Your task to perform on an android device: Open battery settings Image 0: 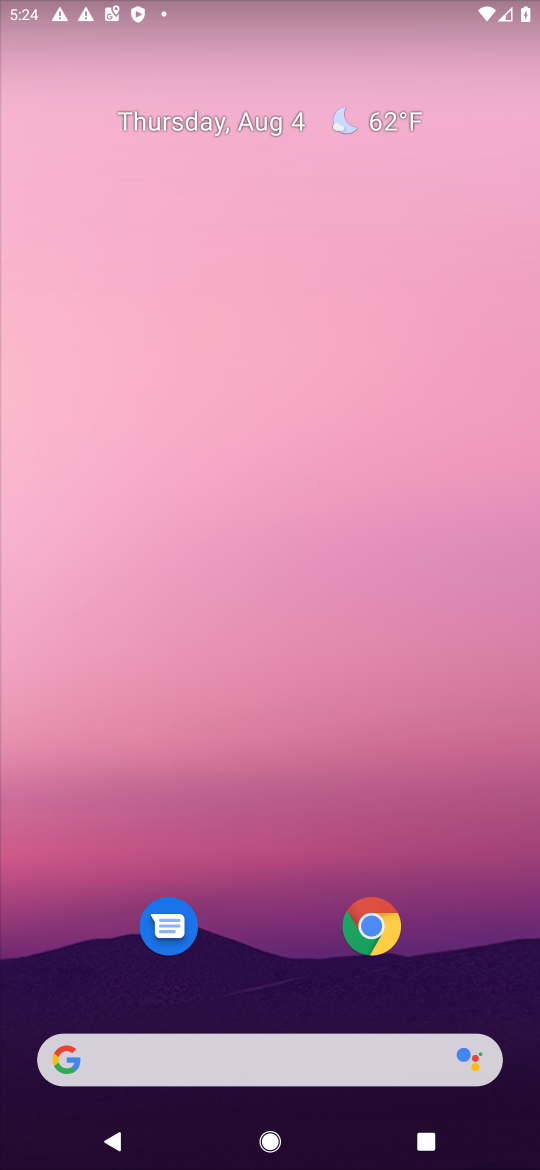
Step 0: press home button
Your task to perform on an android device: Open battery settings Image 1: 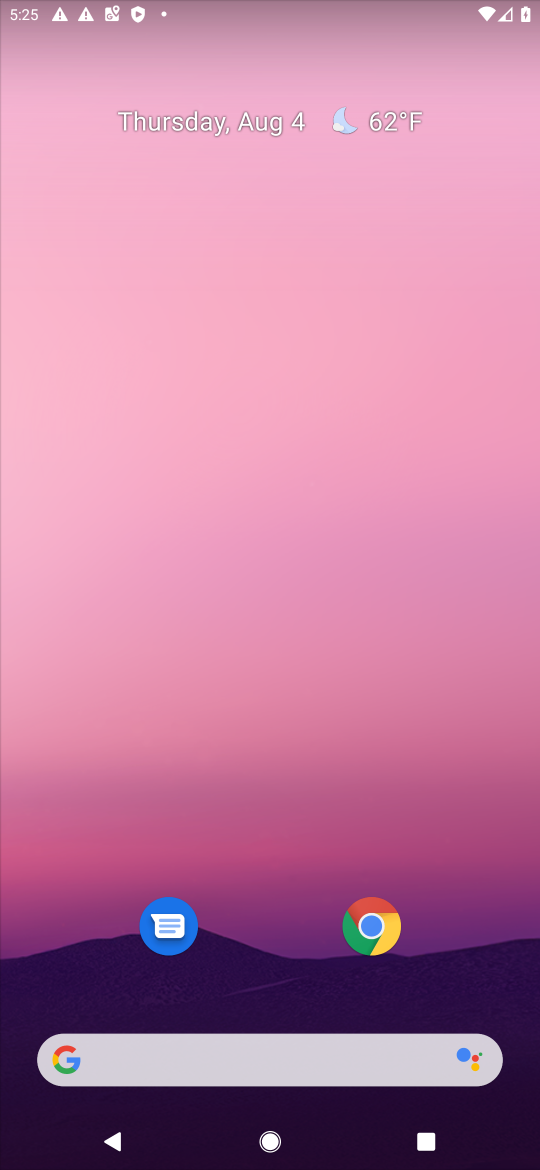
Step 1: drag from (450, 617) to (4, 377)
Your task to perform on an android device: Open battery settings Image 2: 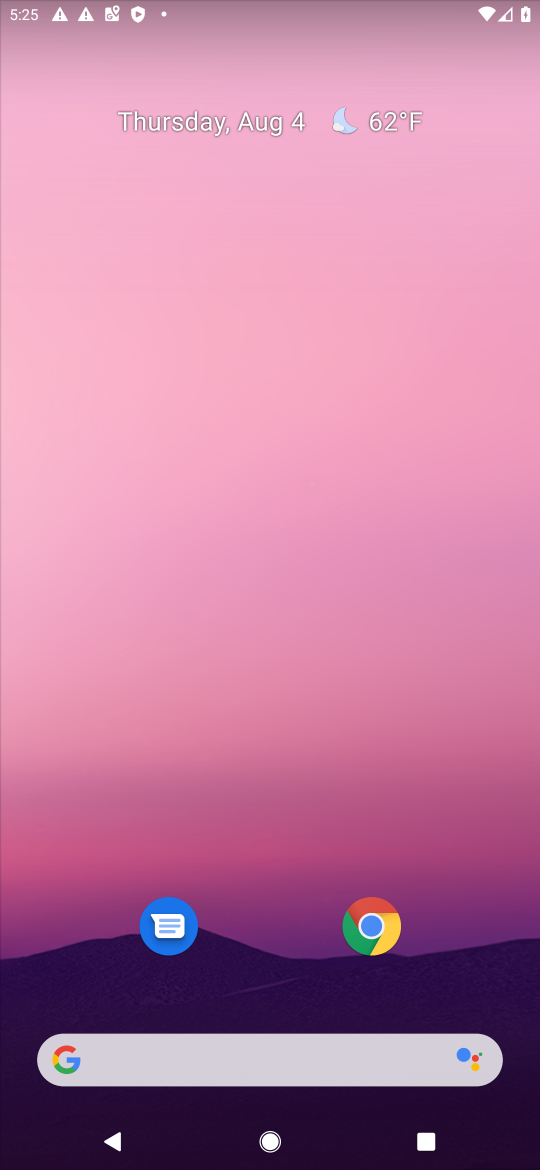
Step 2: drag from (291, 908) to (445, 16)
Your task to perform on an android device: Open battery settings Image 3: 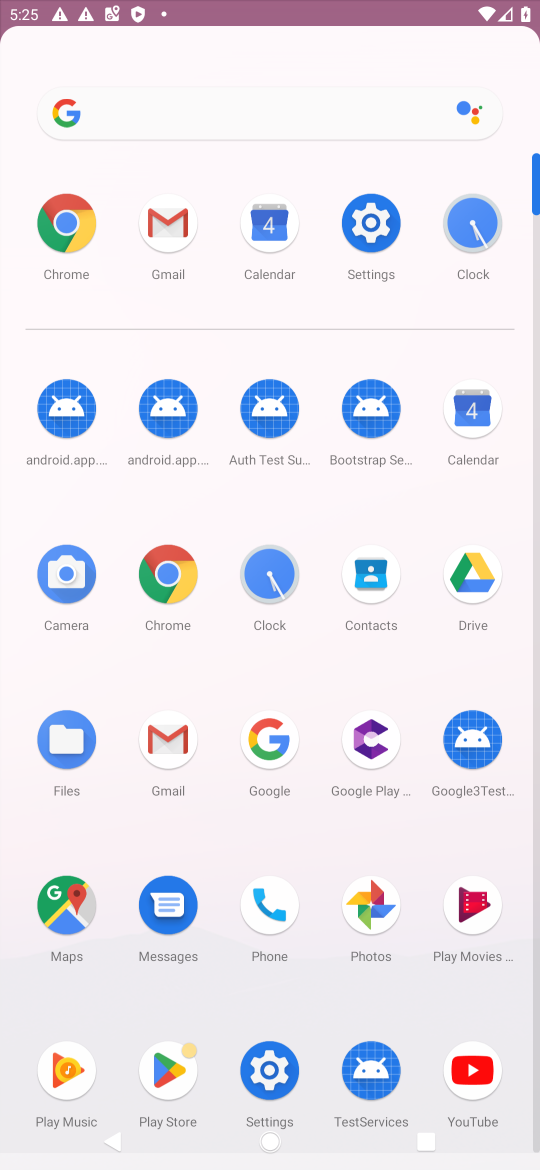
Step 3: click (354, 278)
Your task to perform on an android device: Open battery settings Image 4: 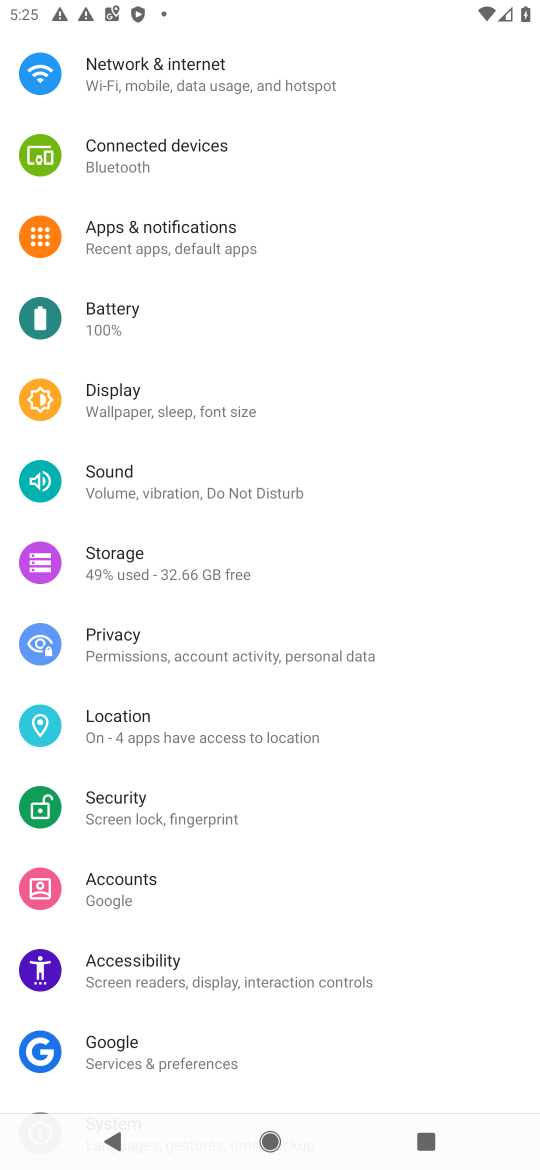
Step 4: click (130, 322)
Your task to perform on an android device: Open battery settings Image 5: 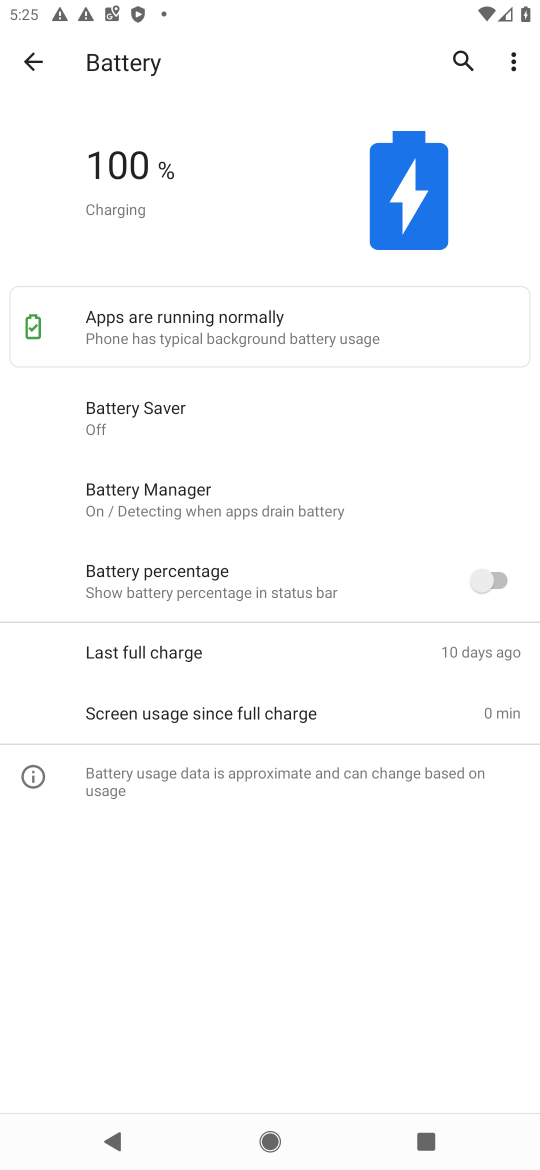
Step 5: task complete